Your task to perform on an android device: What is the news today? Image 0: 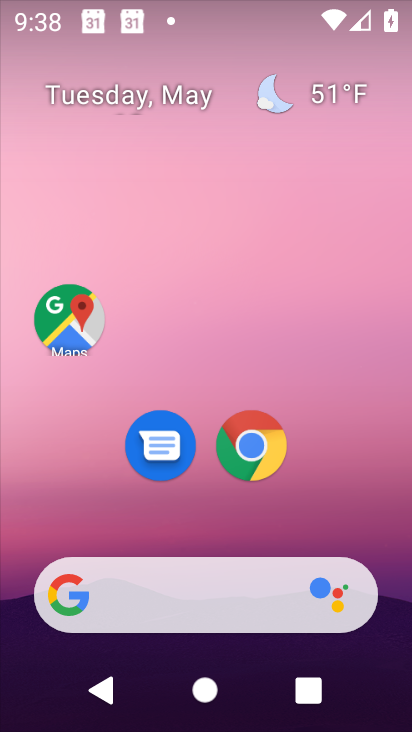
Step 0: drag from (16, 231) to (335, 197)
Your task to perform on an android device: What is the news today? Image 1: 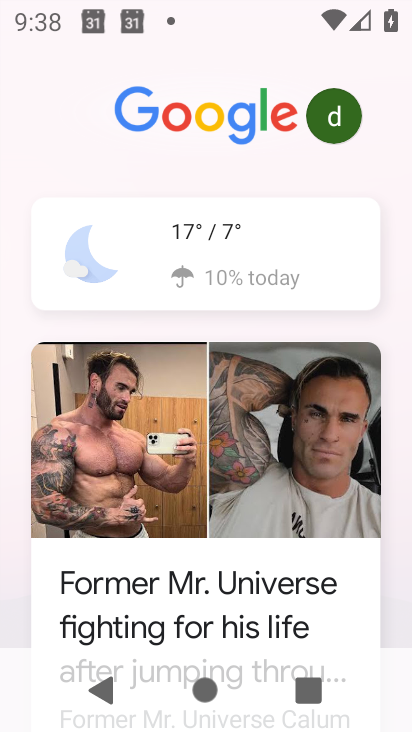
Step 1: task complete